Your task to perform on an android device: Show me popular videos on Youtube Image 0: 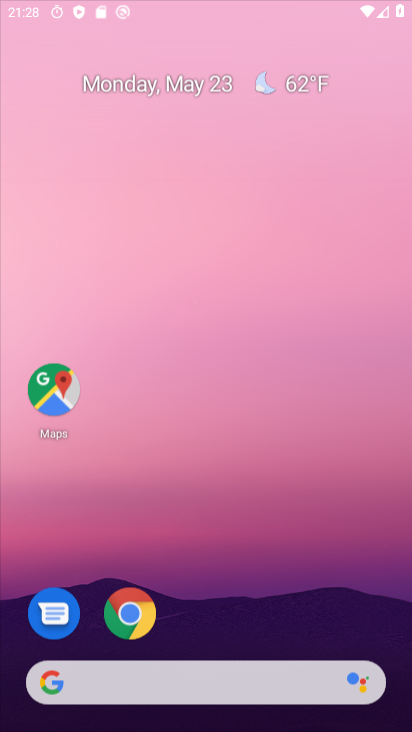
Step 0: click (290, 177)
Your task to perform on an android device: Show me popular videos on Youtube Image 1: 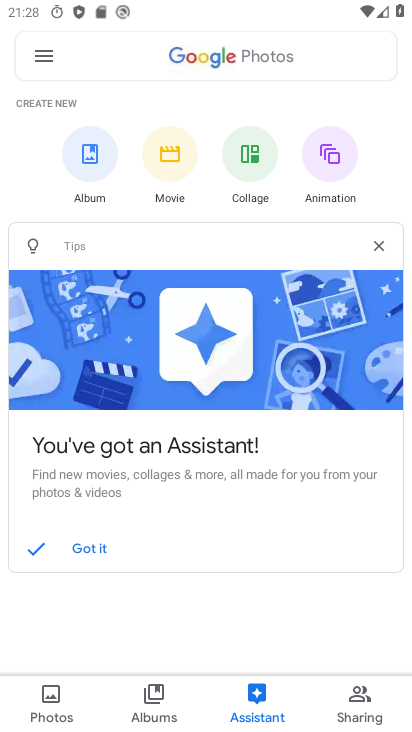
Step 1: press home button
Your task to perform on an android device: Show me popular videos on Youtube Image 2: 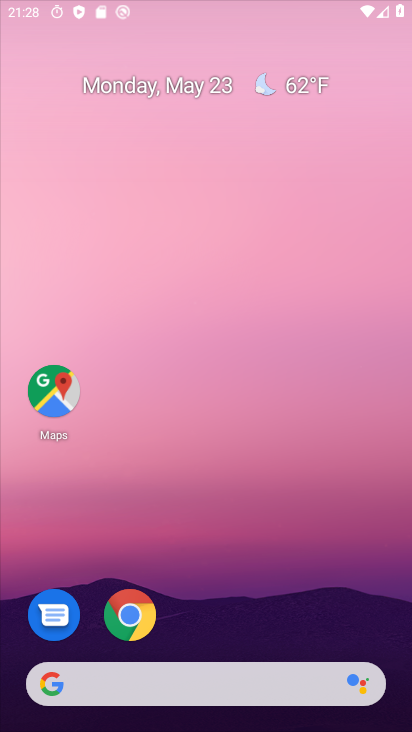
Step 2: drag from (258, 582) to (314, 32)
Your task to perform on an android device: Show me popular videos on Youtube Image 3: 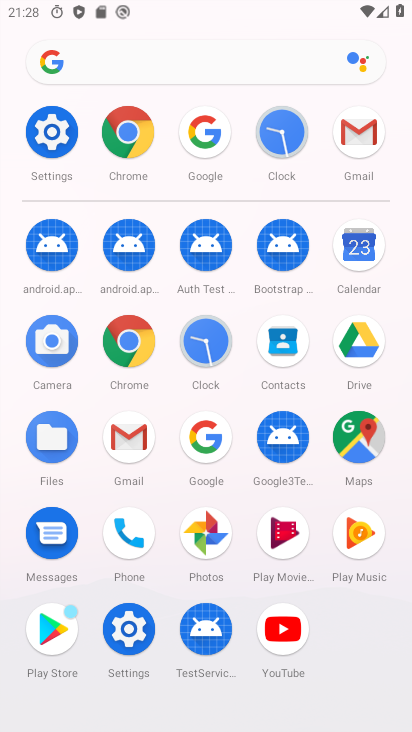
Step 3: click (278, 642)
Your task to perform on an android device: Show me popular videos on Youtube Image 4: 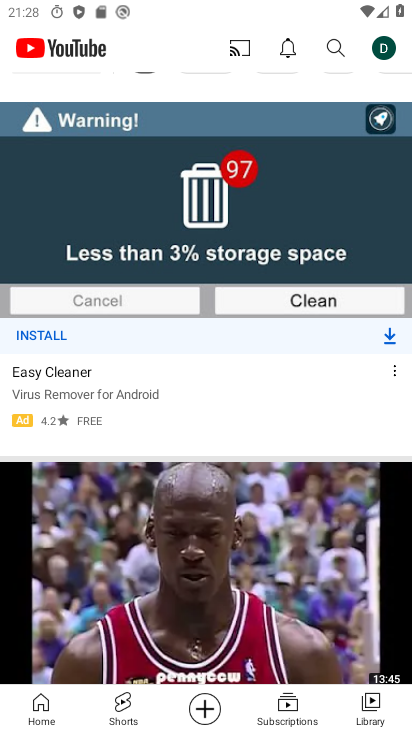
Step 4: click (338, 50)
Your task to perform on an android device: Show me popular videos on Youtube Image 5: 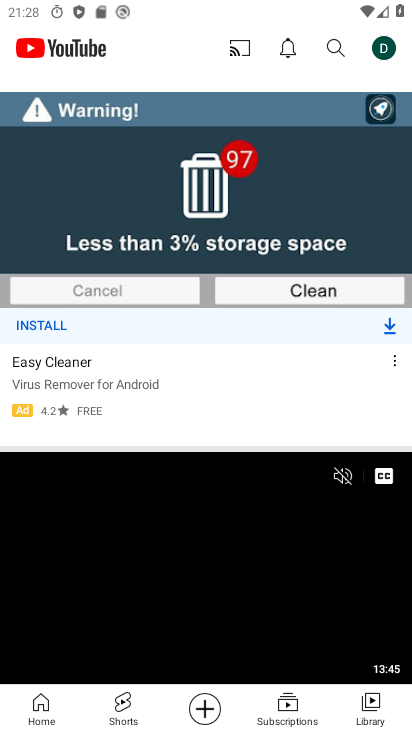
Step 5: task complete